Your task to perform on an android device: toggle translation in the chrome app Image 0: 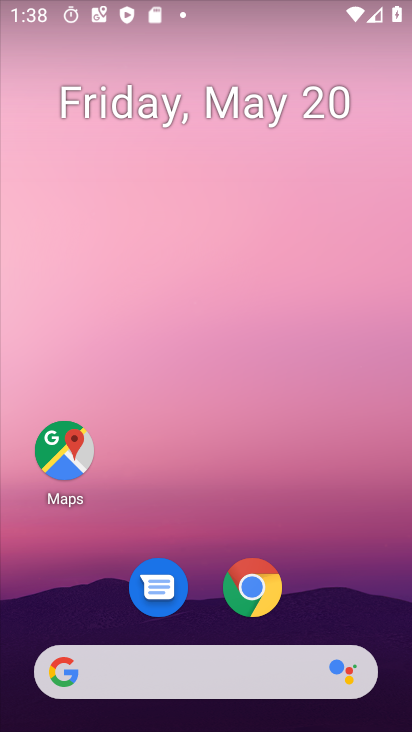
Step 0: click (259, 583)
Your task to perform on an android device: toggle translation in the chrome app Image 1: 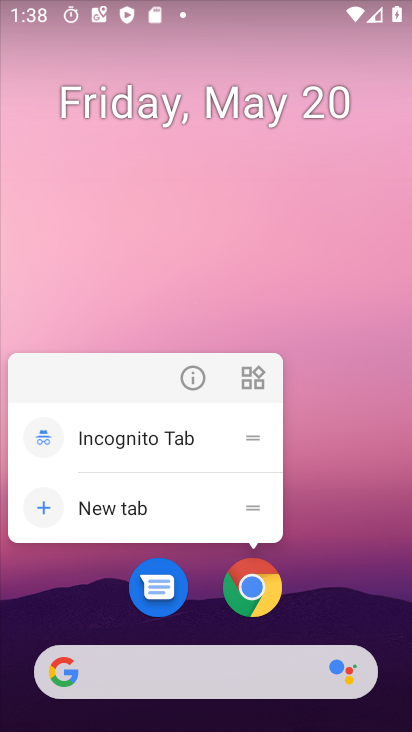
Step 1: click (251, 589)
Your task to perform on an android device: toggle translation in the chrome app Image 2: 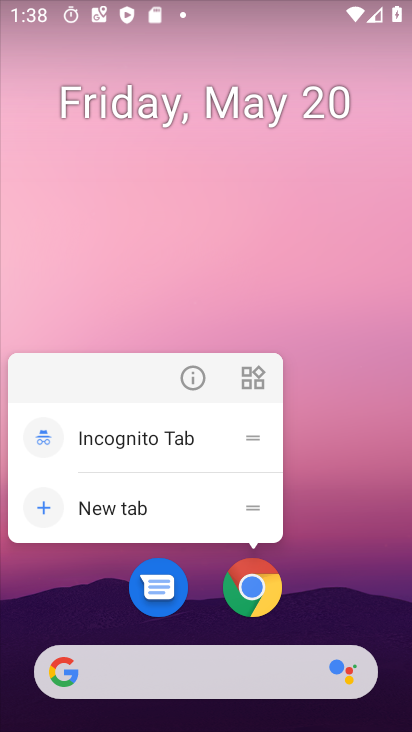
Step 2: click (248, 588)
Your task to perform on an android device: toggle translation in the chrome app Image 3: 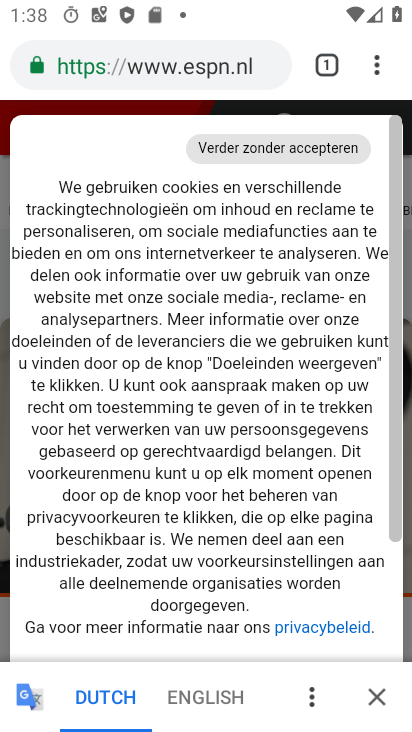
Step 3: click (371, 65)
Your task to perform on an android device: toggle translation in the chrome app Image 4: 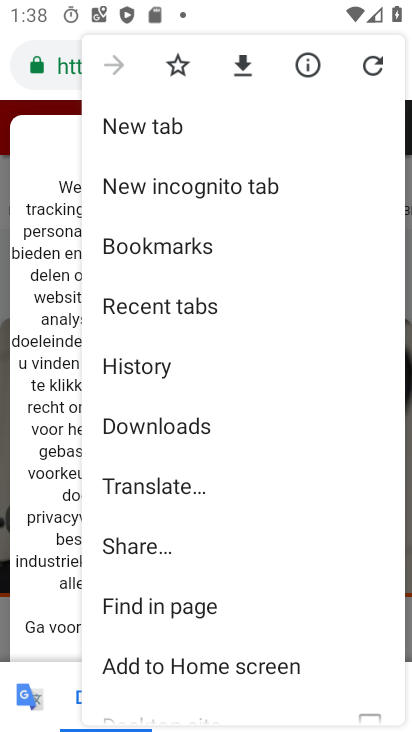
Step 4: drag from (173, 499) to (299, 91)
Your task to perform on an android device: toggle translation in the chrome app Image 5: 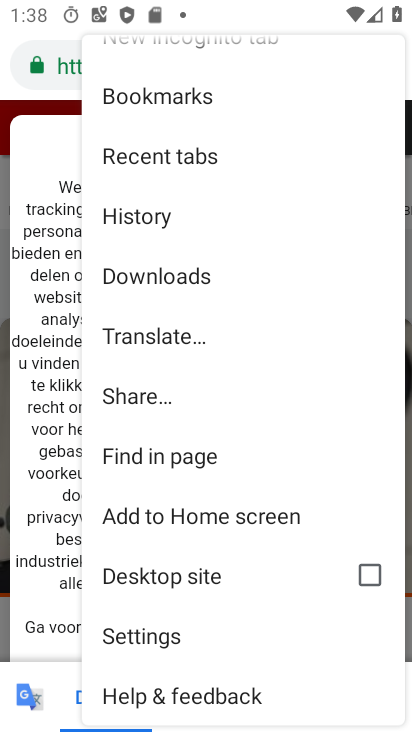
Step 5: click (161, 632)
Your task to perform on an android device: toggle translation in the chrome app Image 6: 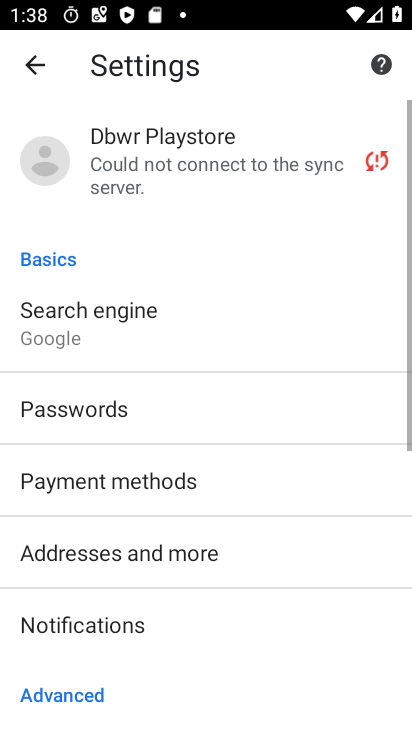
Step 6: drag from (168, 625) to (288, 284)
Your task to perform on an android device: toggle translation in the chrome app Image 7: 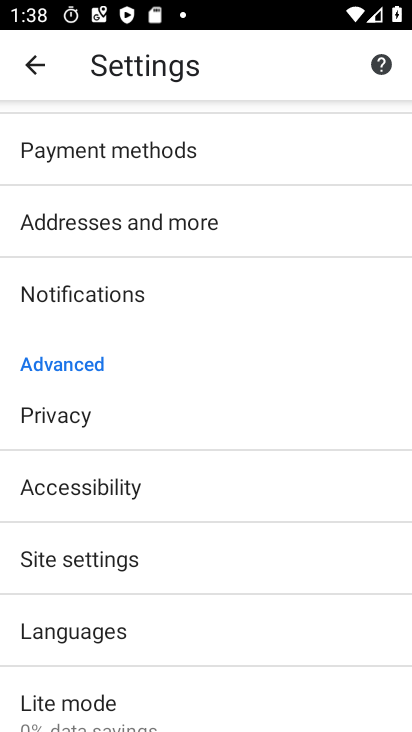
Step 7: drag from (141, 636) to (258, 495)
Your task to perform on an android device: toggle translation in the chrome app Image 8: 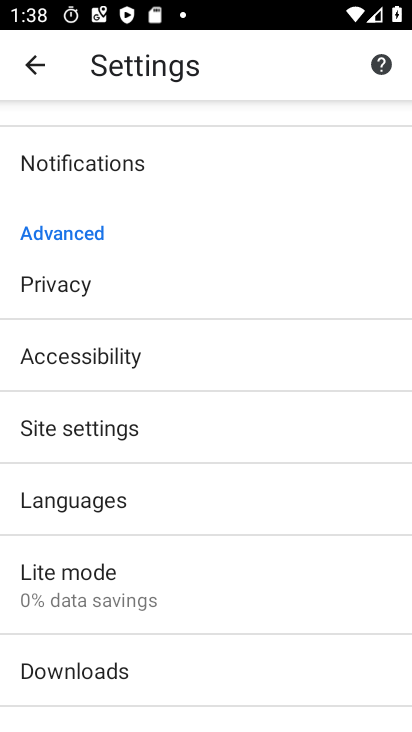
Step 8: click (203, 515)
Your task to perform on an android device: toggle translation in the chrome app Image 9: 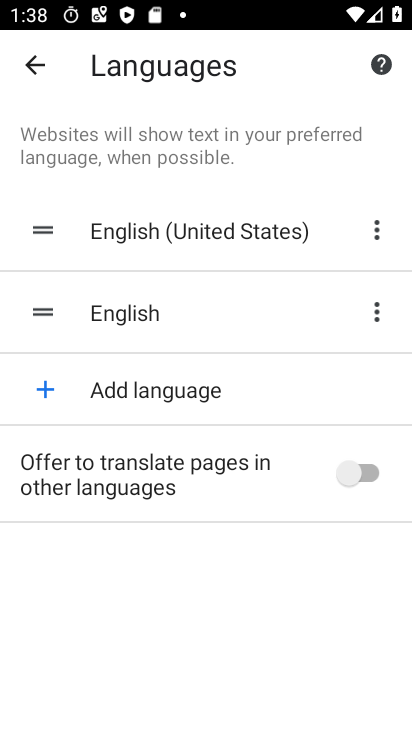
Step 9: click (349, 460)
Your task to perform on an android device: toggle translation in the chrome app Image 10: 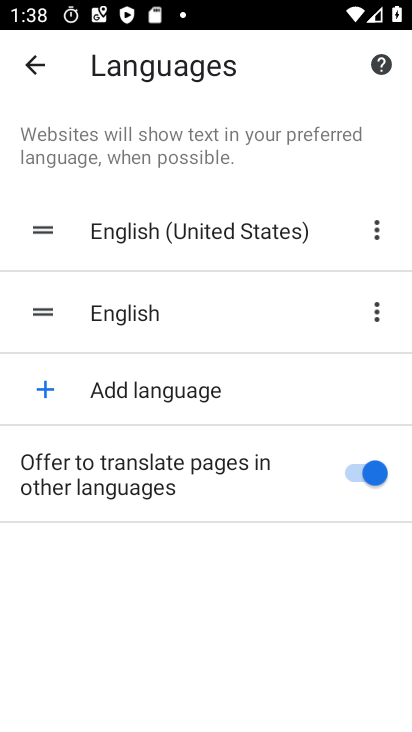
Step 10: task complete